Your task to perform on an android device: Open the web browser Image 0: 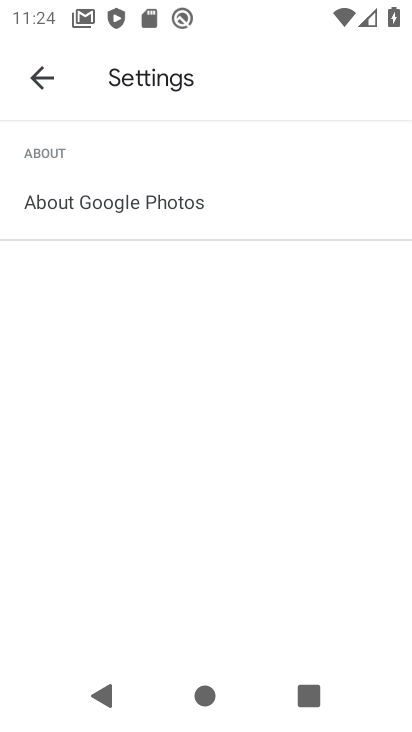
Step 0: press home button
Your task to perform on an android device: Open the web browser Image 1: 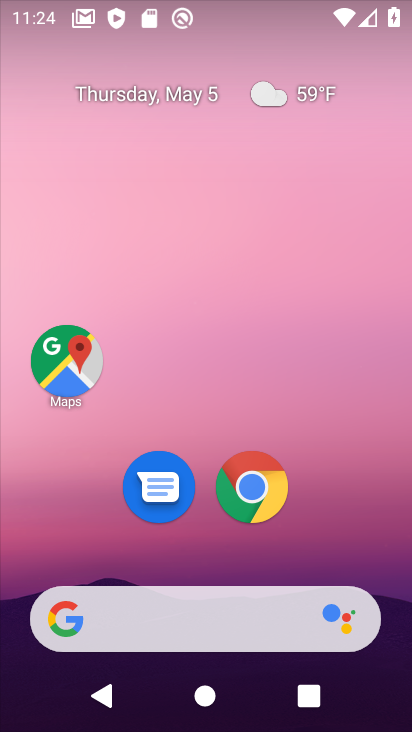
Step 1: click (260, 485)
Your task to perform on an android device: Open the web browser Image 2: 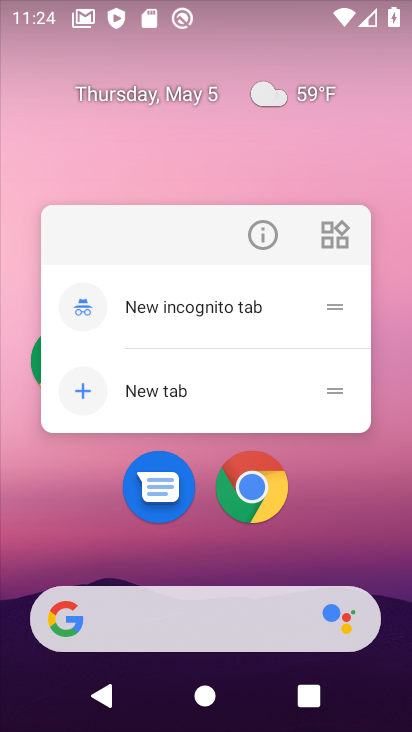
Step 2: click (250, 484)
Your task to perform on an android device: Open the web browser Image 3: 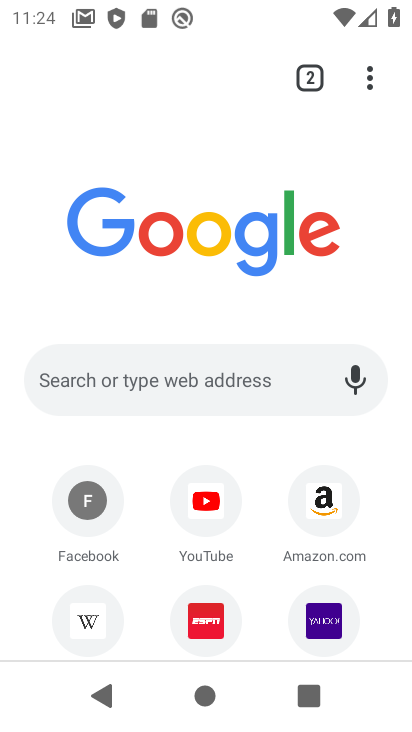
Step 3: task complete